Your task to perform on an android device: all mails in gmail Image 0: 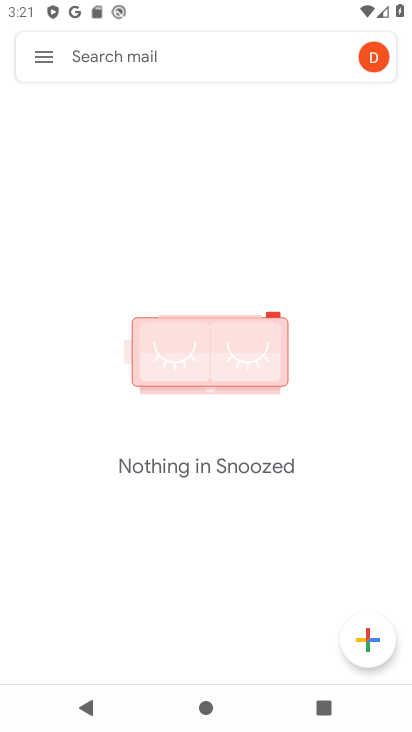
Step 0: press home button
Your task to perform on an android device: all mails in gmail Image 1: 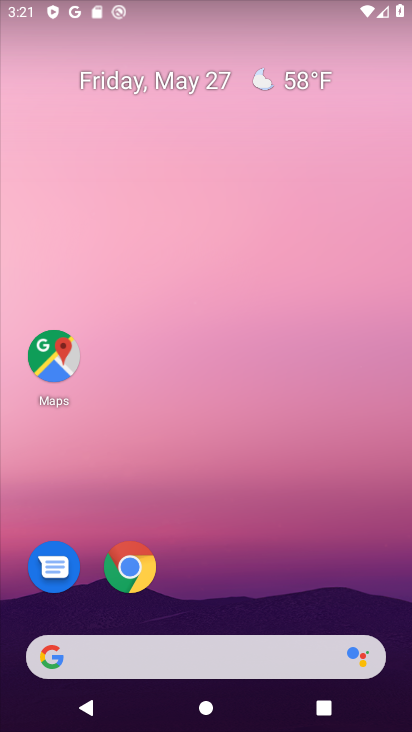
Step 1: drag from (209, 619) to (223, 17)
Your task to perform on an android device: all mails in gmail Image 2: 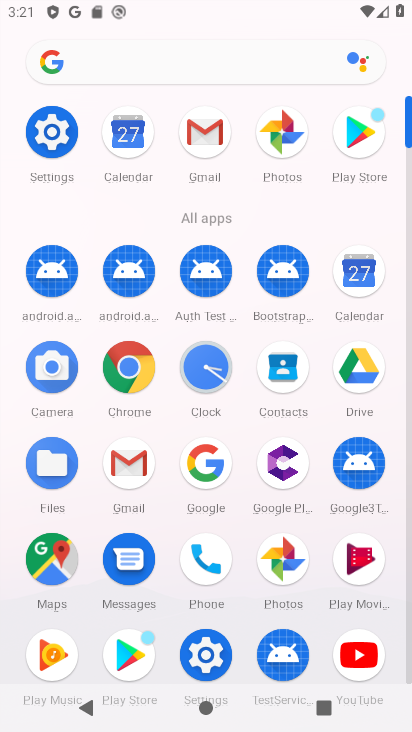
Step 2: click (131, 452)
Your task to perform on an android device: all mails in gmail Image 3: 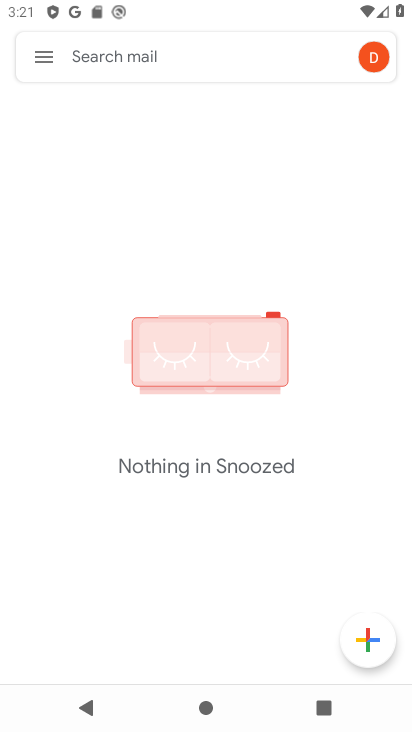
Step 3: click (37, 51)
Your task to perform on an android device: all mails in gmail Image 4: 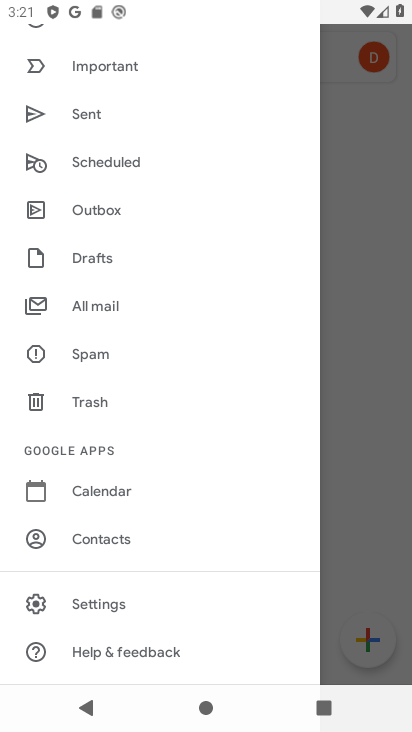
Step 4: click (129, 300)
Your task to perform on an android device: all mails in gmail Image 5: 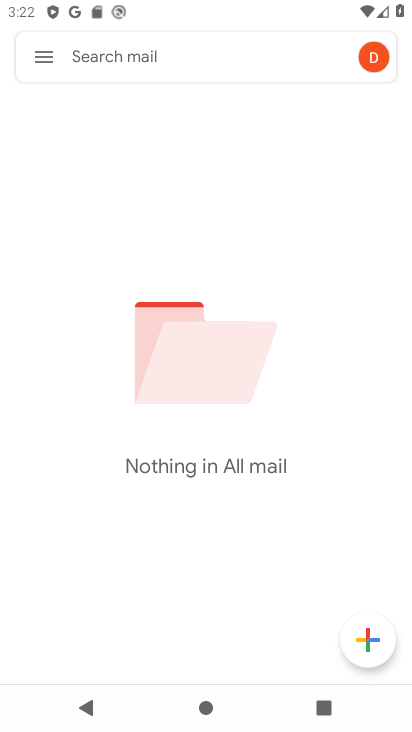
Step 5: task complete